Your task to perform on an android device: uninstall "Facebook Lite" Image 0: 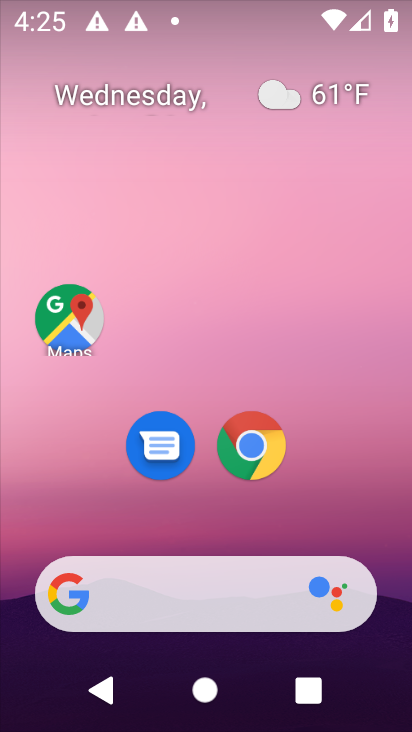
Step 0: drag from (191, 544) to (225, 128)
Your task to perform on an android device: uninstall "Facebook Lite" Image 1: 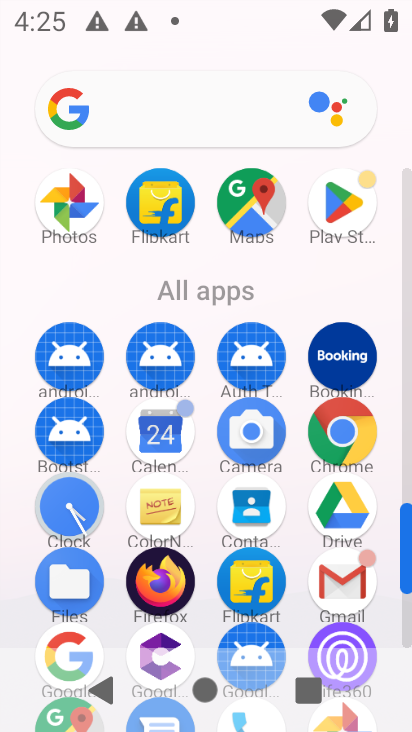
Step 1: click (356, 213)
Your task to perform on an android device: uninstall "Facebook Lite" Image 2: 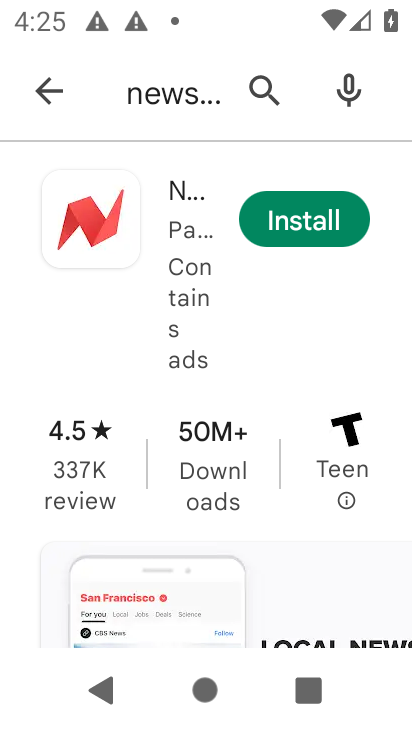
Step 2: click (153, 99)
Your task to perform on an android device: uninstall "Facebook Lite" Image 3: 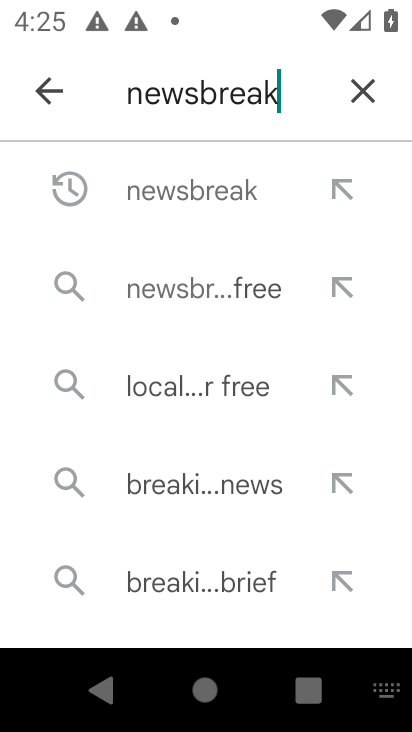
Step 3: click (364, 89)
Your task to perform on an android device: uninstall "Facebook Lite" Image 4: 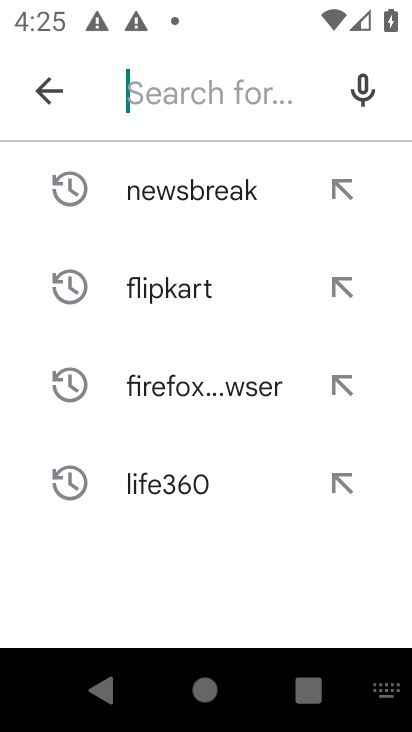
Step 4: type "facebook lite"
Your task to perform on an android device: uninstall "Facebook Lite" Image 5: 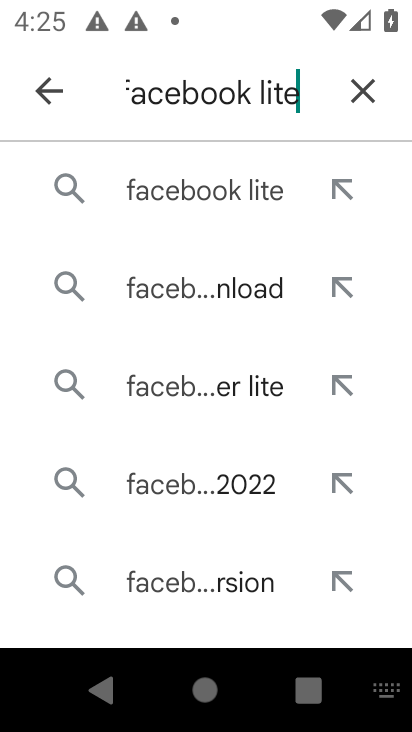
Step 5: click (174, 202)
Your task to perform on an android device: uninstall "Facebook Lite" Image 6: 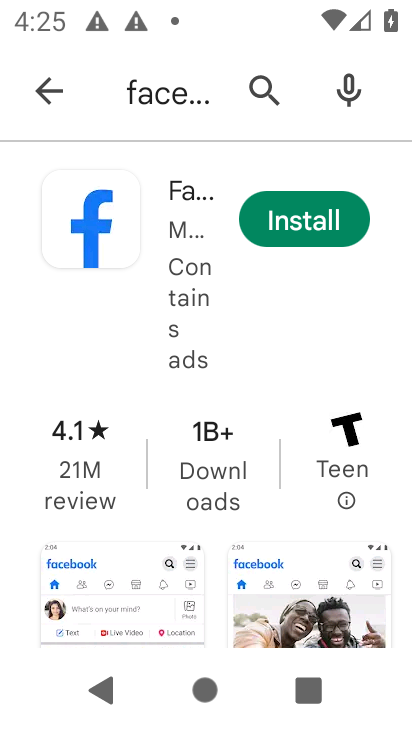
Step 6: task complete